Your task to perform on an android device: turn on the 24-hour format for clock Image 0: 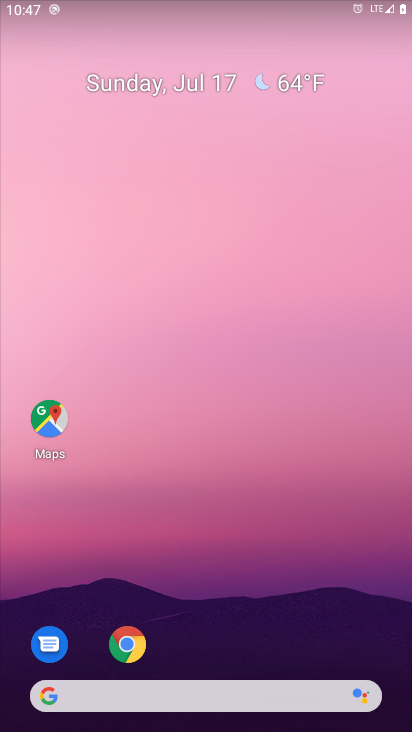
Step 0: press home button
Your task to perform on an android device: turn on the 24-hour format for clock Image 1: 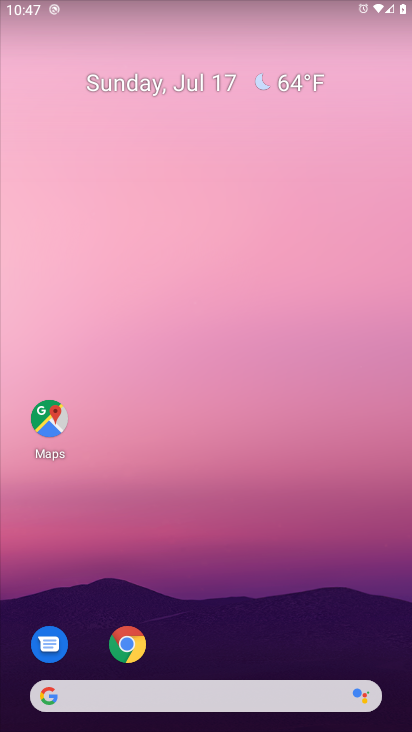
Step 1: drag from (301, 651) to (240, 121)
Your task to perform on an android device: turn on the 24-hour format for clock Image 2: 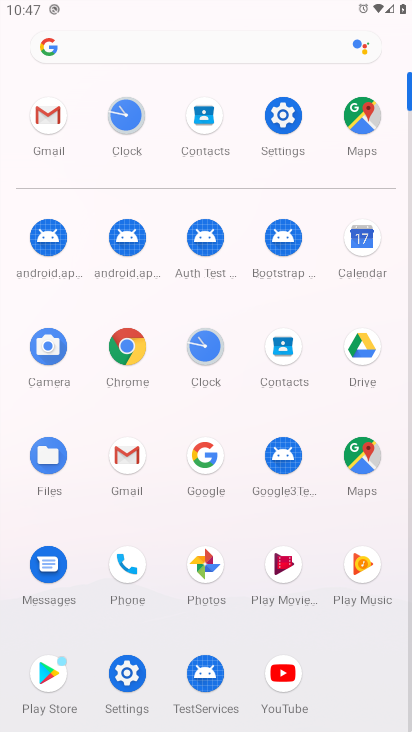
Step 2: click (205, 347)
Your task to perform on an android device: turn on the 24-hour format for clock Image 3: 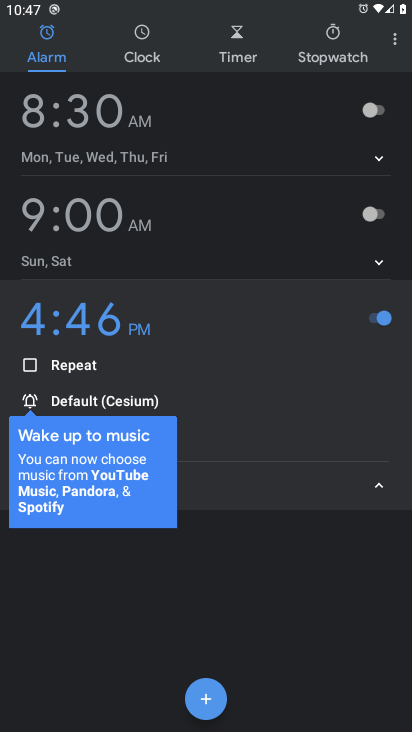
Step 3: click (391, 40)
Your task to perform on an android device: turn on the 24-hour format for clock Image 4: 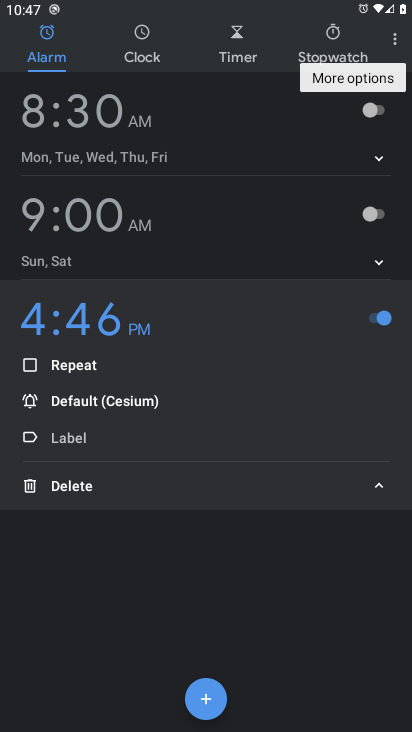
Step 4: click (393, 43)
Your task to perform on an android device: turn on the 24-hour format for clock Image 5: 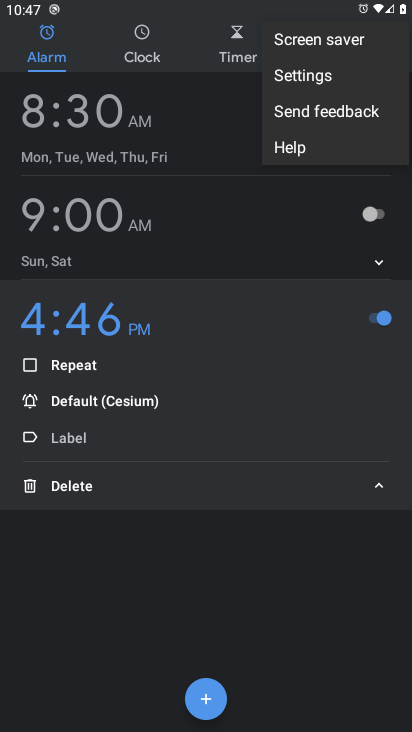
Step 5: click (349, 79)
Your task to perform on an android device: turn on the 24-hour format for clock Image 6: 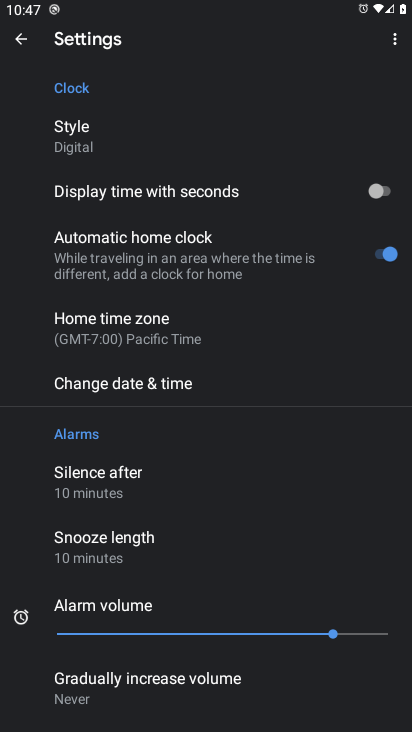
Step 6: click (98, 383)
Your task to perform on an android device: turn on the 24-hour format for clock Image 7: 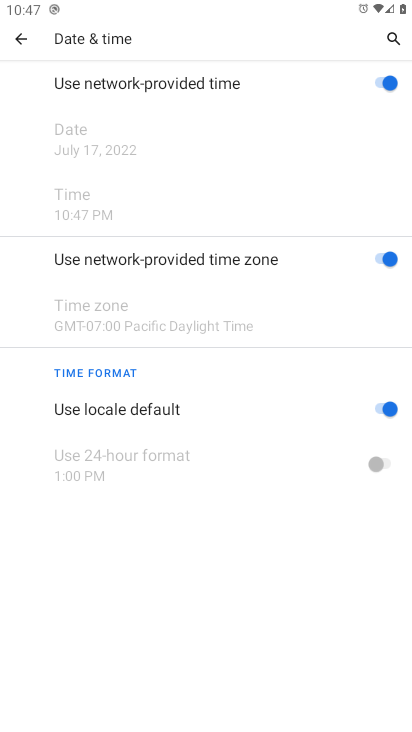
Step 7: click (385, 402)
Your task to perform on an android device: turn on the 24-hour format for clock Image 8: 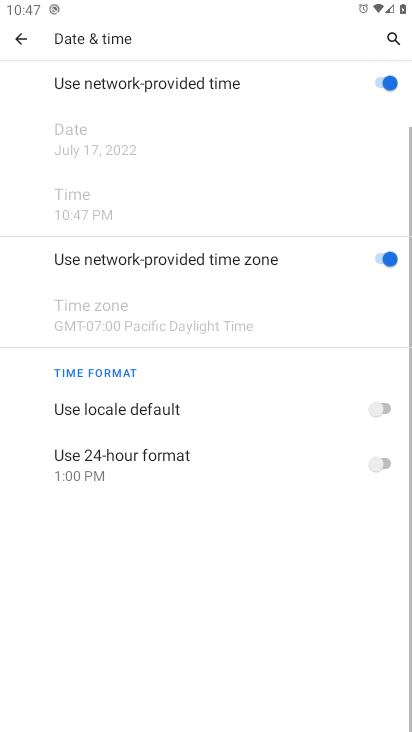
Step 8: click (382, 467)
Your task to perform on an android device: turn on the 24-hour format for clock Image 9: 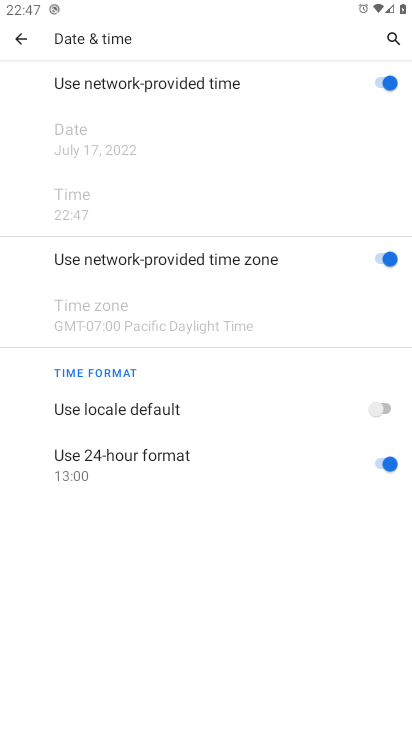
Step 9: task complete